Your task to perform on an android device: change your default location settings in chrome Image 0: 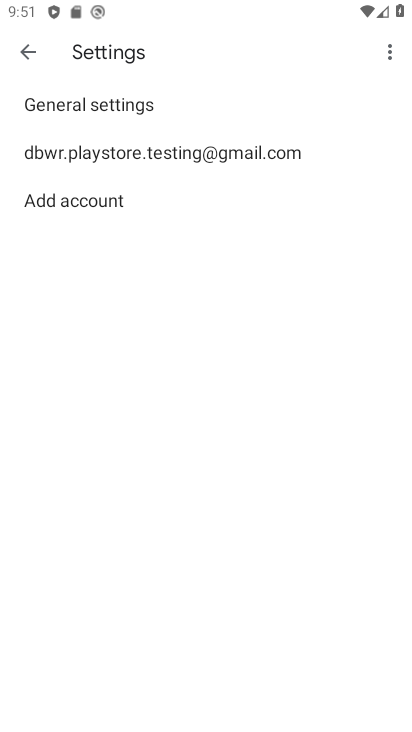
Step 0: task complete